Your task to perform on an android device: find snoozed emails in the gmail app Image 0: 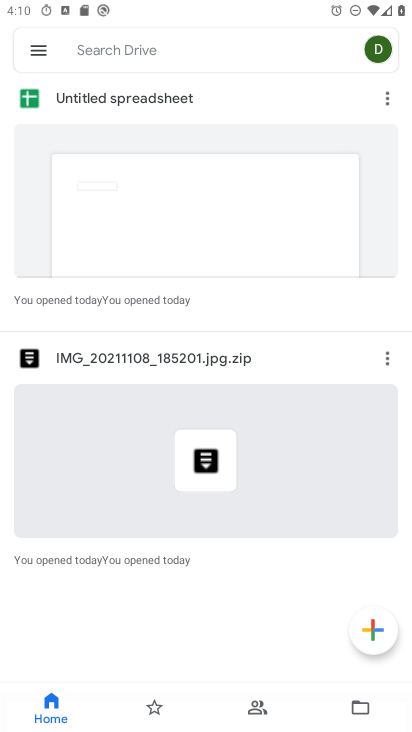
Step 0: press home button
Your task to perform on an android device: find snoozed emails in the gmail app Image 1: 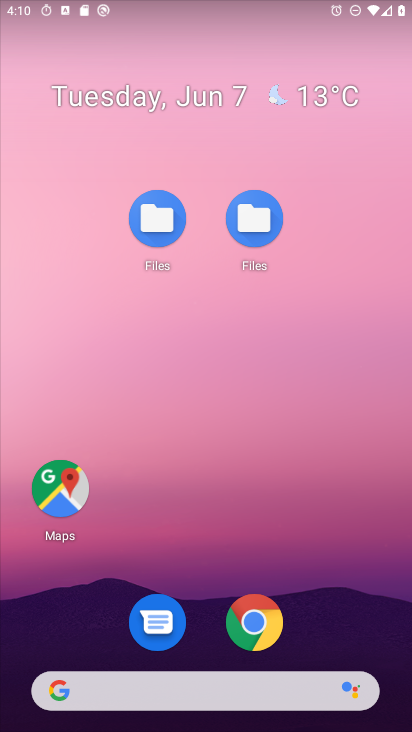
Step 1: drag from (339, 631) to (309, 359)
Your task to perform on an android device: find snoozed emails in the gmail app Image 2: 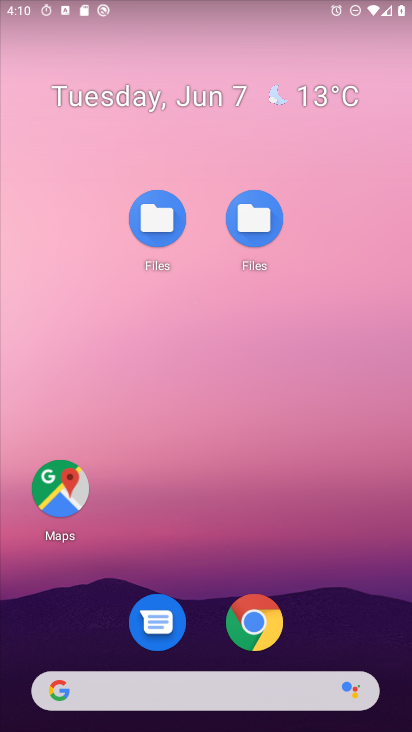
Step 2: drag from (356, 617) to (345, 174)
Your task to perform on an android device: find snoozed emails in the gmail app Image 3: 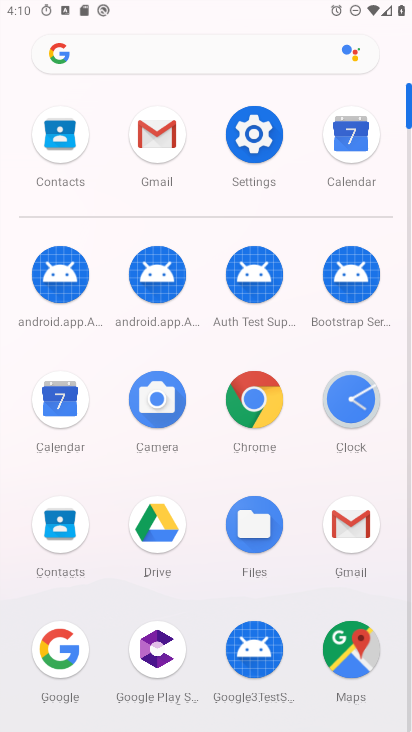
Step 3: click (153, 145)
Your task to perform on an android device: find snoozed emails in the gmail app Image 4: 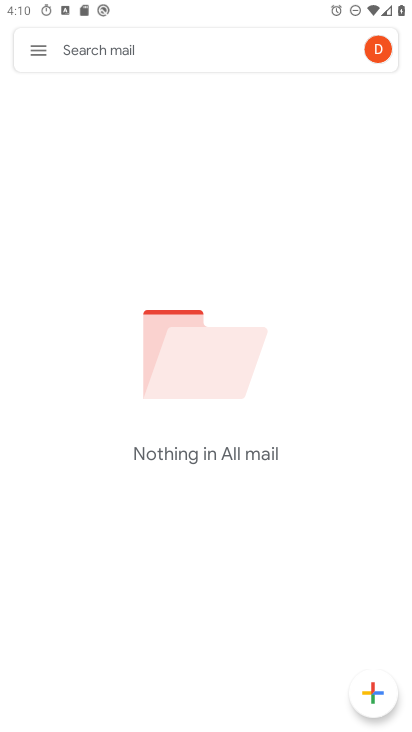
Step 4: click (49, 45)
Your task to perform on an android device: find snoozed emails in the gmail app Image 5: 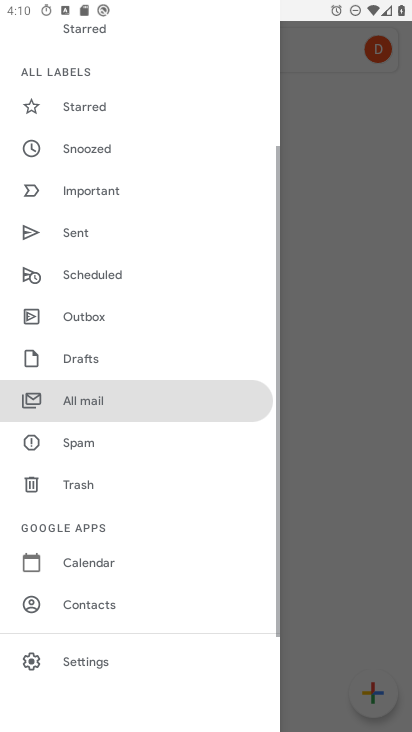
Step 5: click (49, 45)
Your task to perform on an android device: find snoozed emails in the gmail app Image 6: 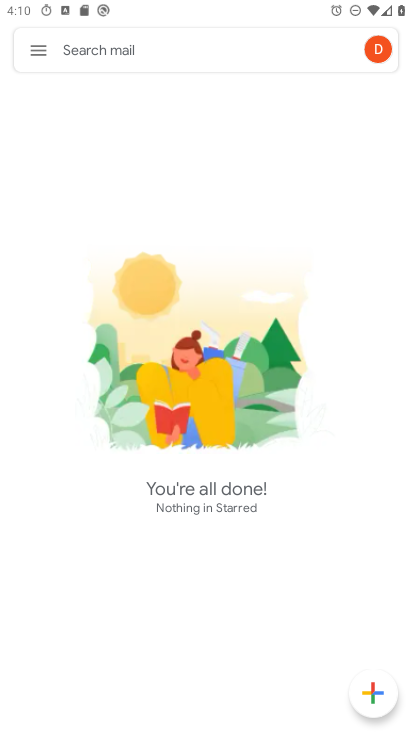
Step 6: click (35, 43)
Your task to perform on an android device: find snoozed emails in the gmail app Image 7: 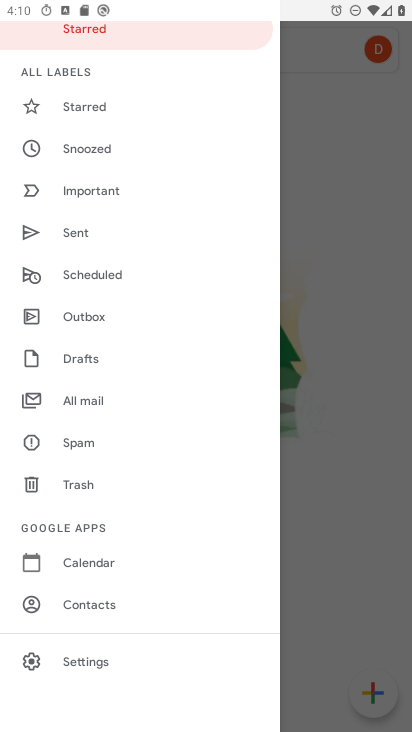
Step 7: click (68, 151)
Your task to perform on an android device: find snoozed emails in the gmail app Image 8: 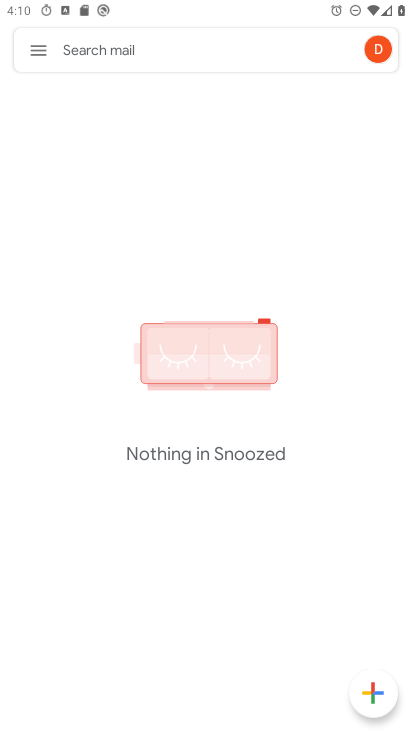
Step 8: task complete